Your task to perform on an android device: What's the price of the Galaxy phone on eBay? Image 0: 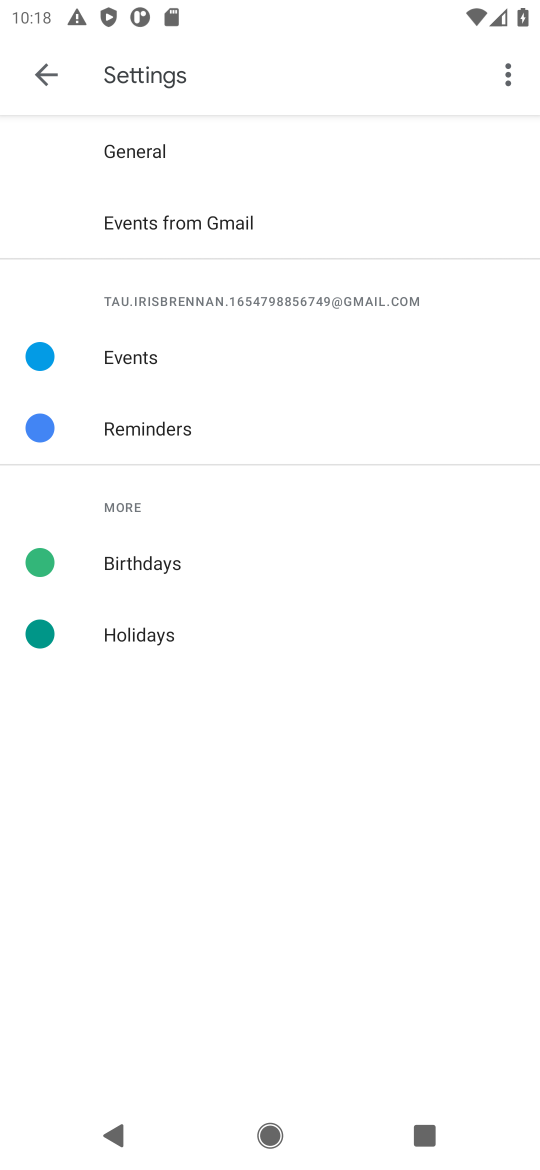
Step 0: press home button
Your task to perform on an android device: What's the price of the Galaxy phone on eBay? Image 1: 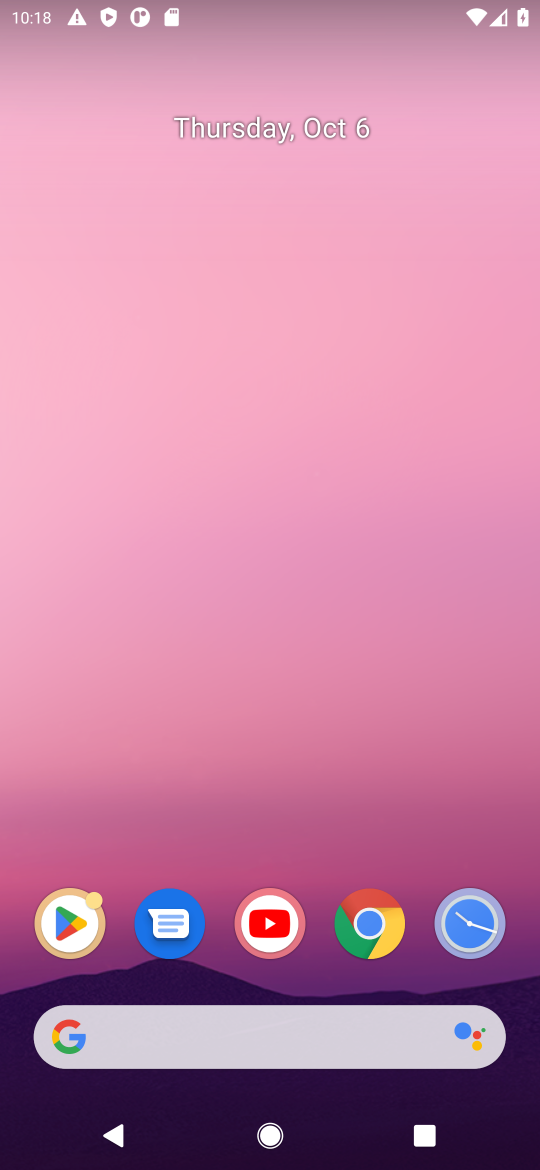
Step 1: click (363, 915)
Your task to perform on an android device: What's the price of the Galaxy phone on eBay? Image 2: 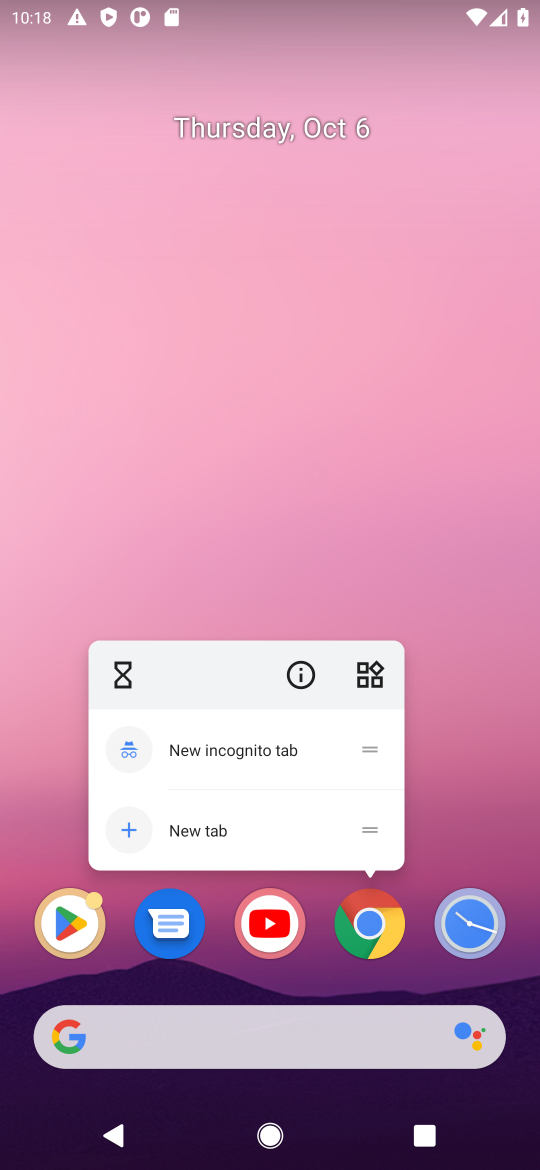
Step 2: click (383, 929)
Your task to perform on an android device: What's the price of the Galaxy phone on eBay? Image 3: 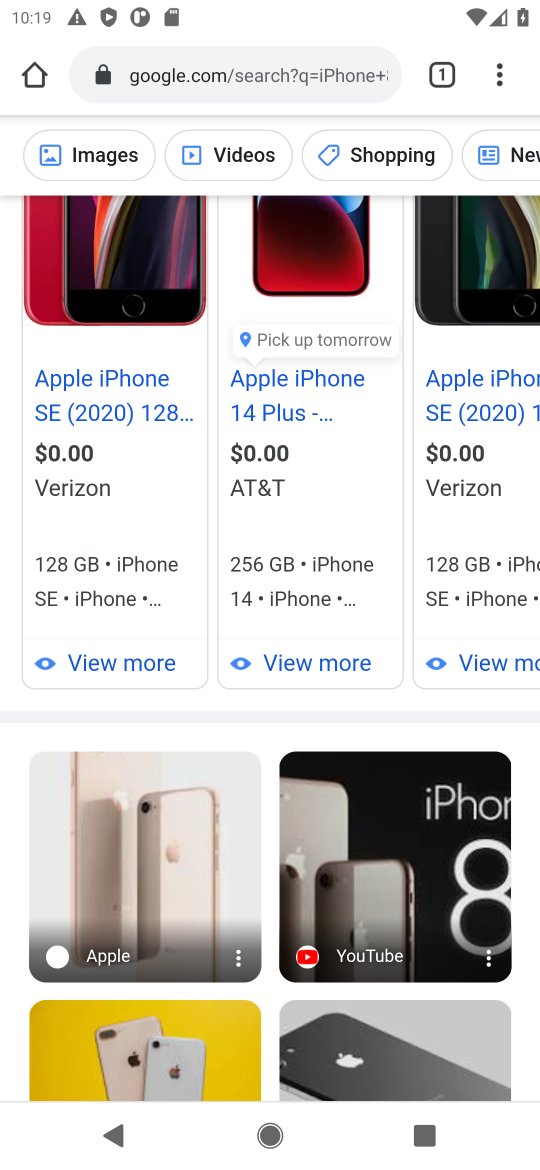
Step 3: click (210, 72)
Your task to perform on an android device: What's the price of the Galaxy phone on eBay? Image 4: 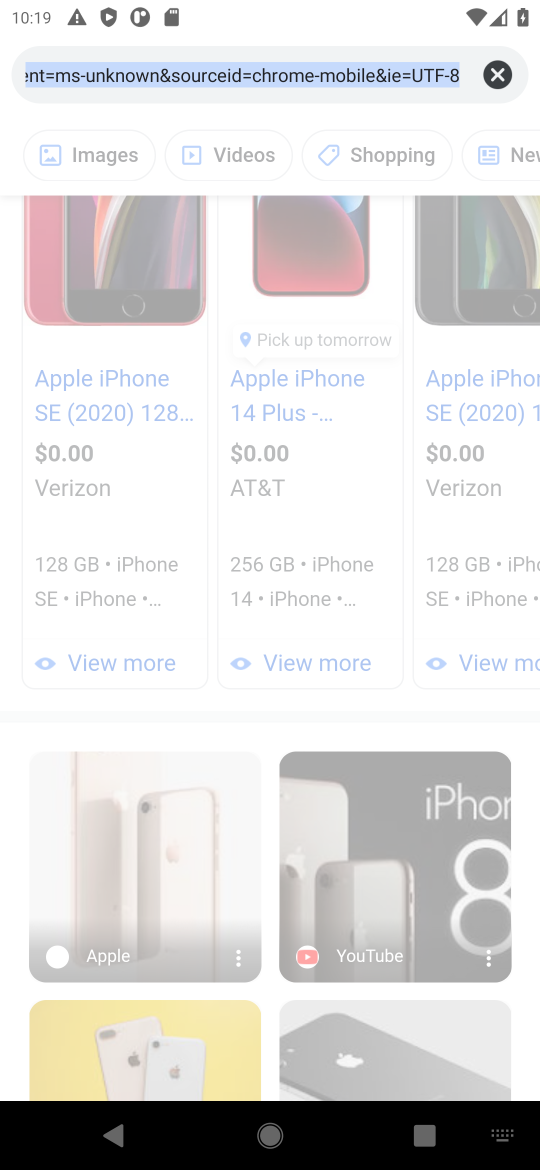
Step 4: click (495, 75)
Your task to perform on an android device: What's the price of the Galaxy phone on eBay? Image 5: 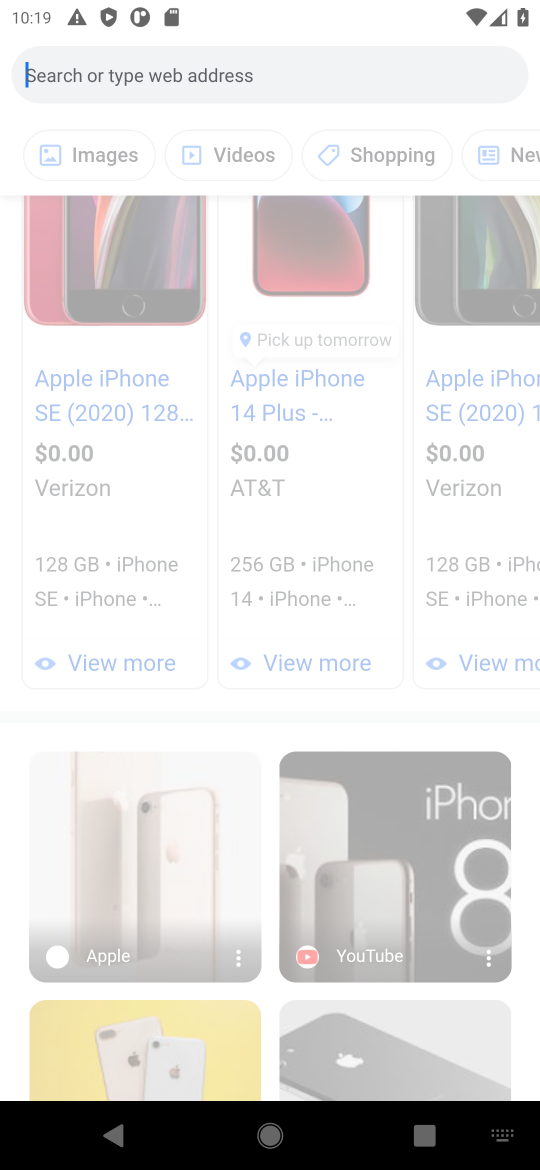
Step 5: type " price of the Galaxy phone on eBay"
Your task to perform on an android device: What's the price of the Galaxy phone on eBay? Image 6: 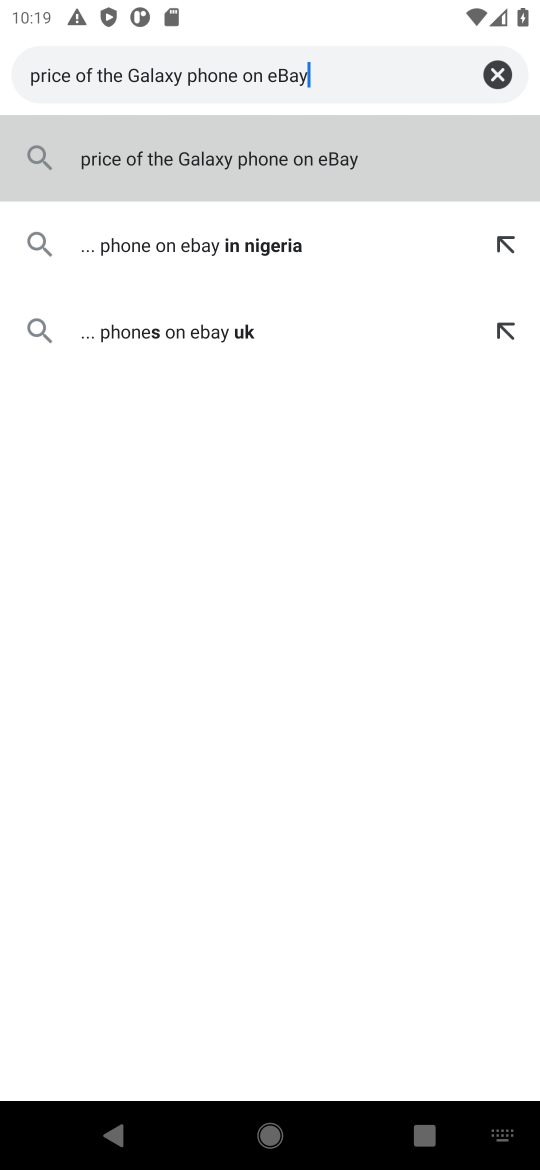
Step 6: click (263, 164)
Your task to perform on an android device: What's the price of the Galaxy phone on eBay? Image 7: 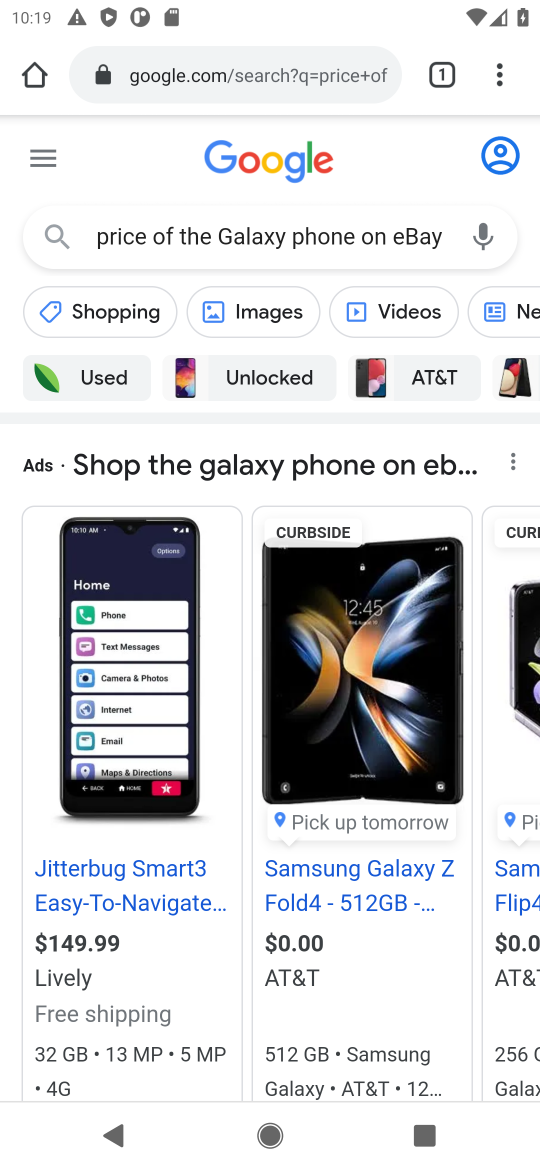
Step 7: click (225, 472)
Your task to perform on an android device: What's the price of the Galaxy phone on eBay? Image 8: 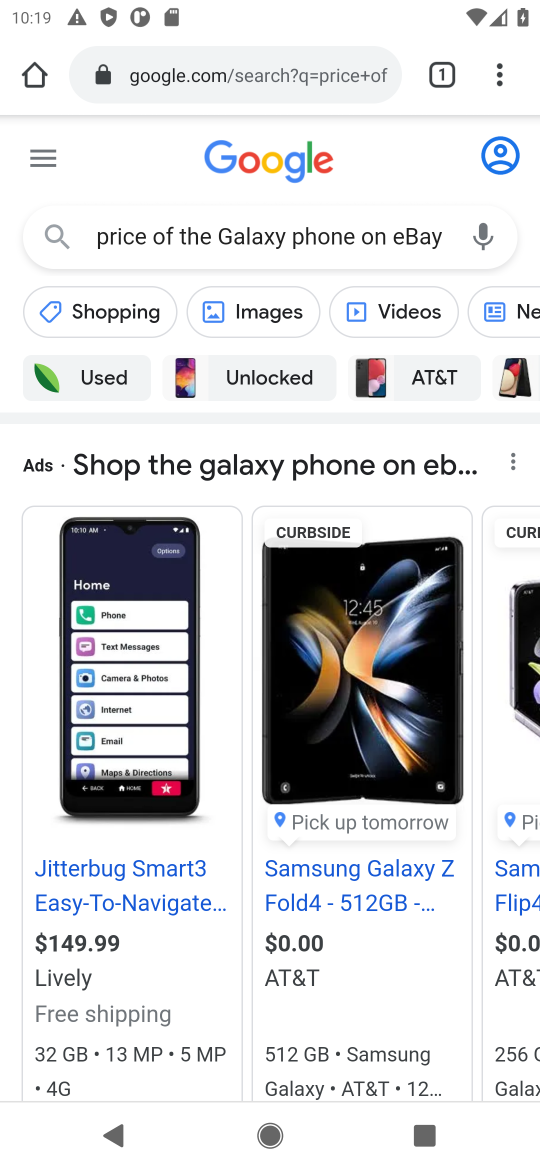
Step 8: click (119, 794)
Your task to perform on an android device: What's the price of the Galaxy phone on eBay? Image 9: 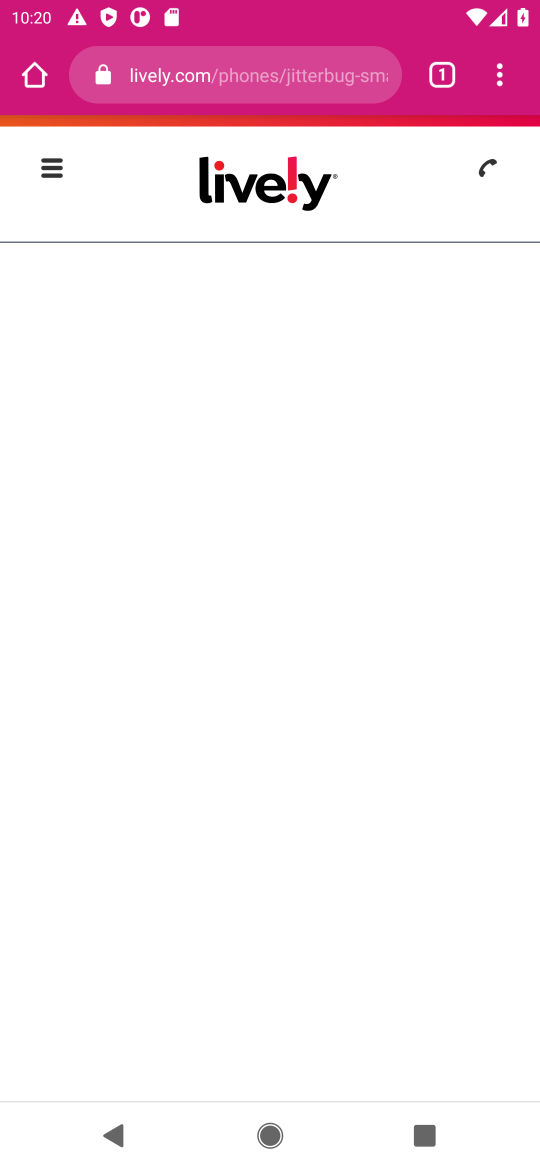
Step 9: task complete